Your task to perform on an android device: Open Youtube and go to "Your channel" Image 0: 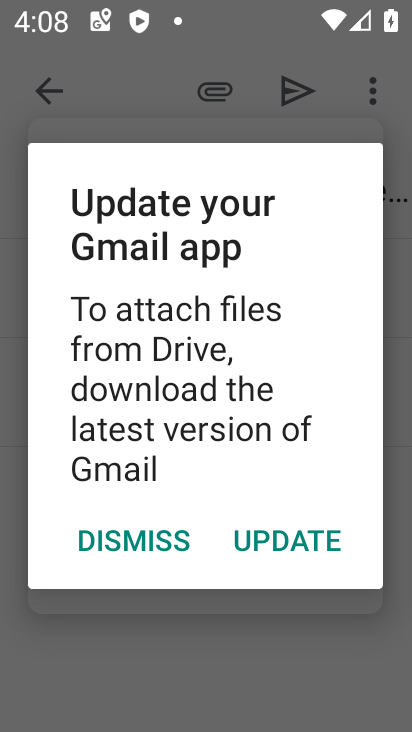
Step 0: press home button
Your task to perform on an android device: Open Youtube and go to "Your channel" Image 1: 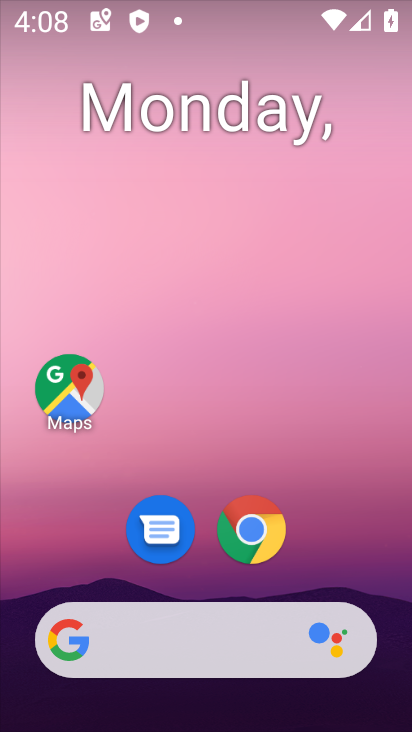
Step 1: drag from (208, 707) to (213, 201)
Your task to perform on an android device: Open Youtube and go to "Your channel" Image 2: 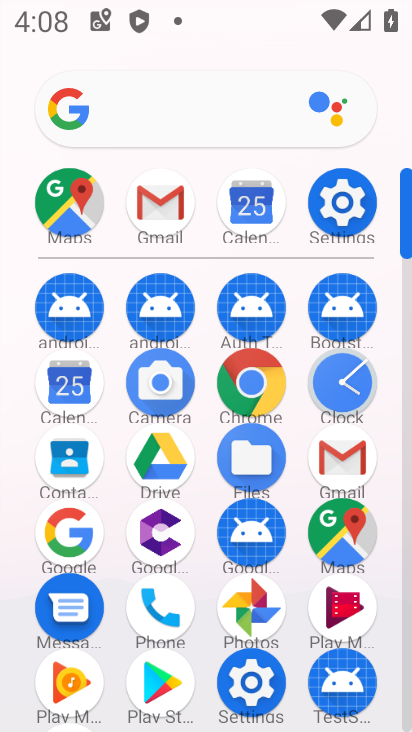
Step 2: drag from (195, 670) to (194, 285)
Your task to perform on an android device: Open Youtube and go to "Your channel" Image 3: 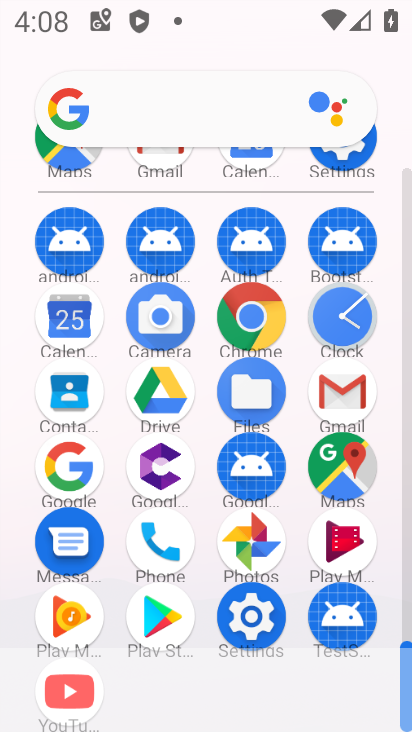
Step 3: click (71, 690)
Your task to perform on an android device: Open Youtube and go to "Your channel" Image 4: 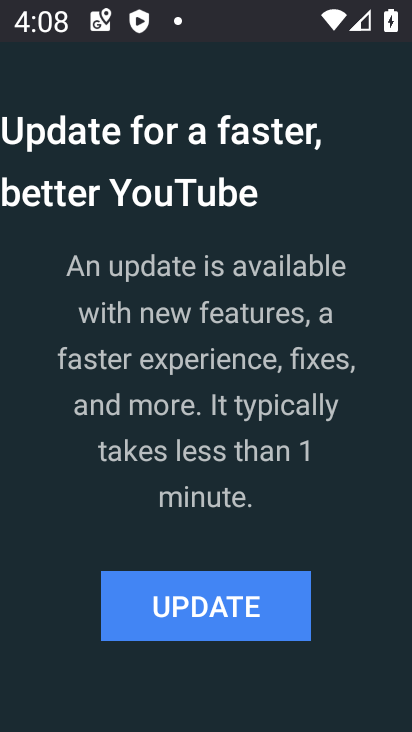
Step 4: press home button
Your task to perform on an android device: Open Youtube and go to "Your channel" Image 5: 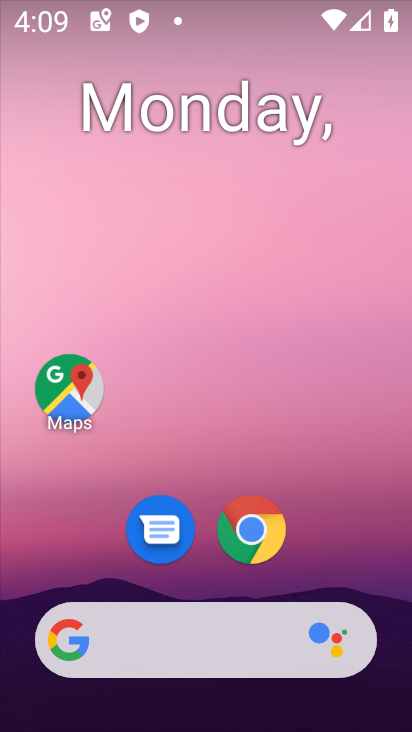
Step 5: drag from (226, 716) to (226, 216)
Your task to perform on an android device: Open Youtube and go to "Your channel" Image 6: 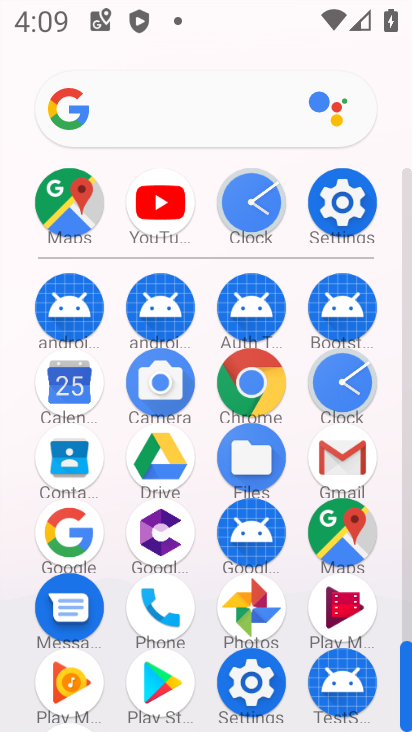
Step 6: click (155, 213)
Your task to perform on an android device: Open Youtube and go to "Your channel" Image 7: 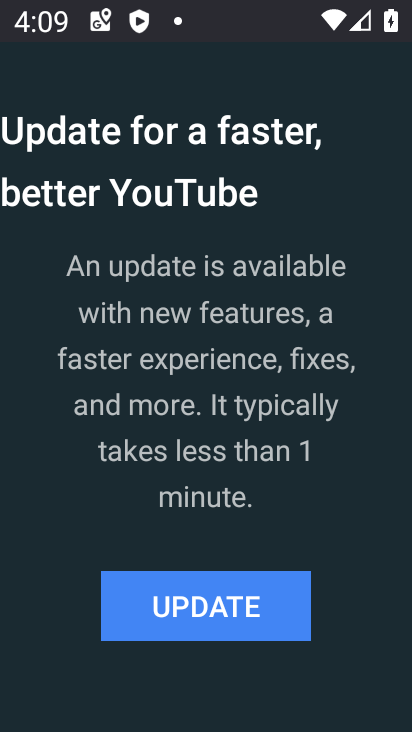
Step 7: task complete